Your task to perform on an android device: Search for Italian restaurants on Maps Image 0: 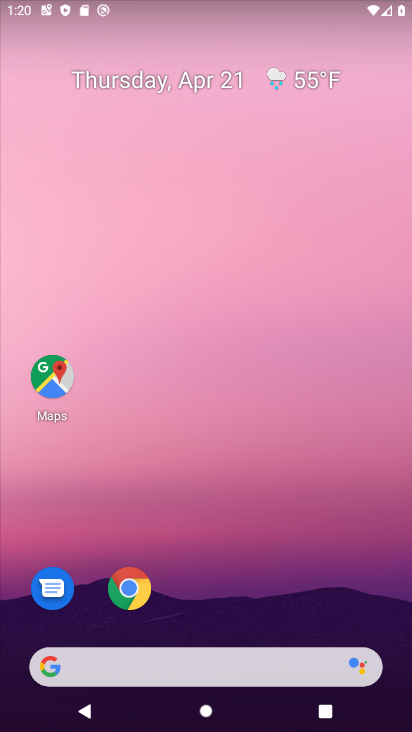
Step 0: drag from (188, 530) to (260, 14)
Your task to perform on an android device: Search for Italian restaurants on Maps Image 1: 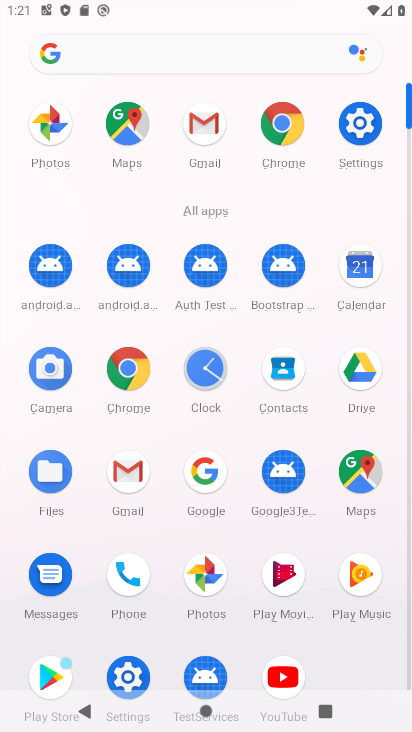
Step 1: click (372, 478)
Your task to perform on an android device: Search for Italian restaurants on Maps Image 2: 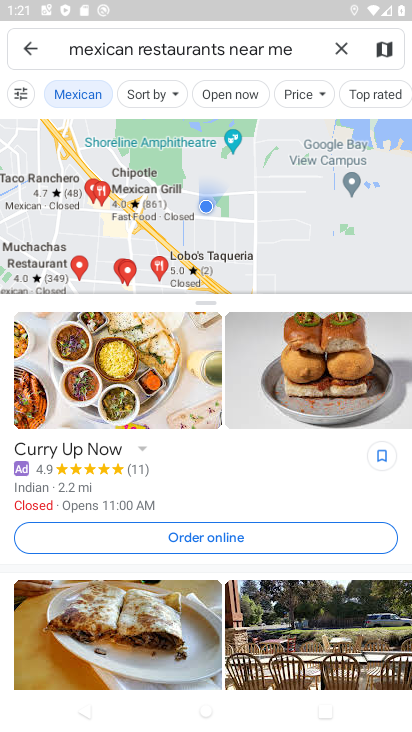
Step 2: click (343, 44)
Your task to perform on an android device: Search for Italian restaurants on Maps Image 3: 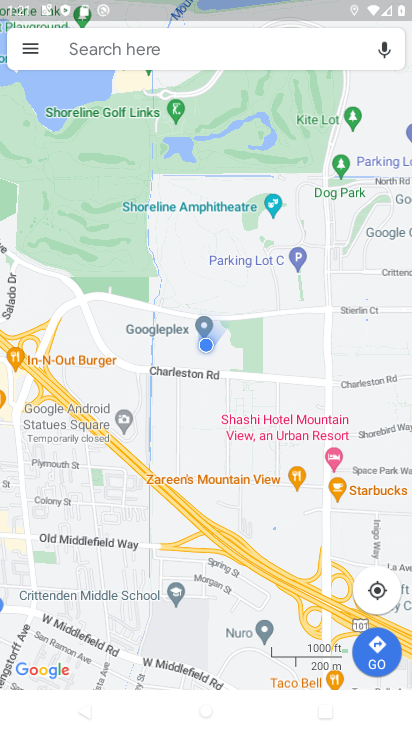
Step 3: click (253, 53)
Your task to perform on an android device: Search for Italian restaurants on Maps Image 4: 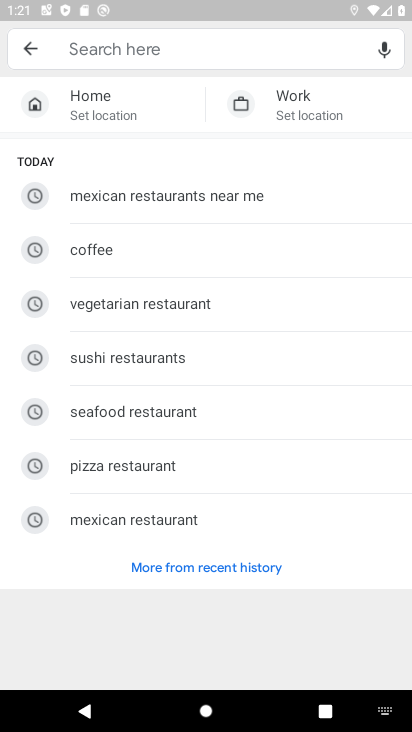
Step 4: type "Italian restaurants "
Your task to perform on an android device: Search for Italian restaurants on Maps Image 5: 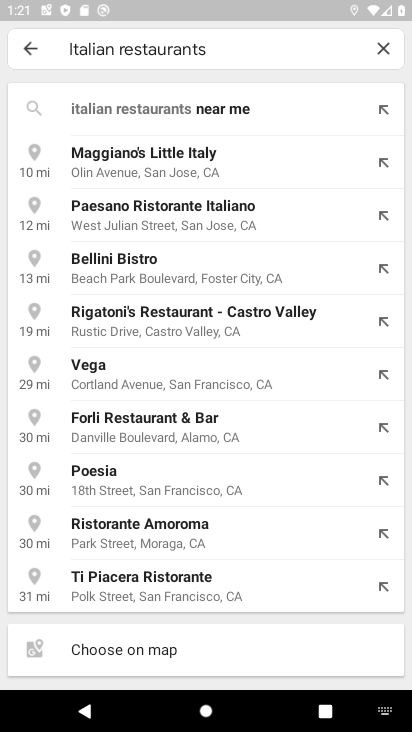
Step 5: click (240, 114)
Your task to perform on an android device: Search for Italian restaurants on Maps Image 6: 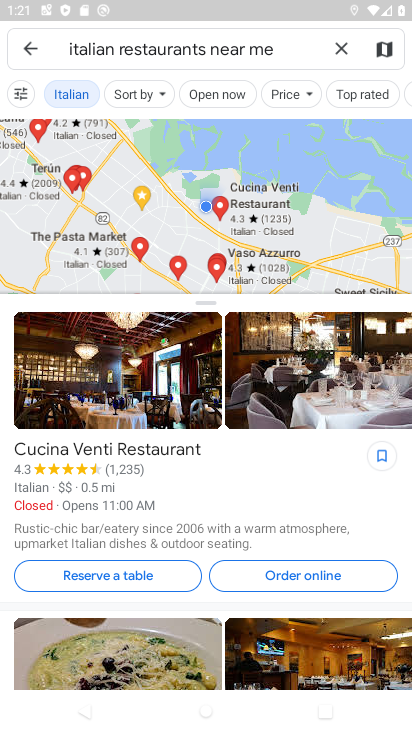
Step 6: task complete